Your task to perform on an android device: turn on improve location accuracy Image 0: 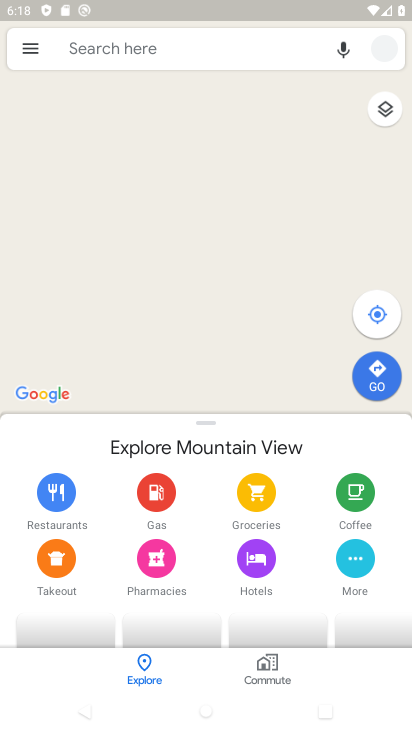
Step 0: click (59, 400)
Your task to perform on an android device: turn on improve location accuracy Image 1: 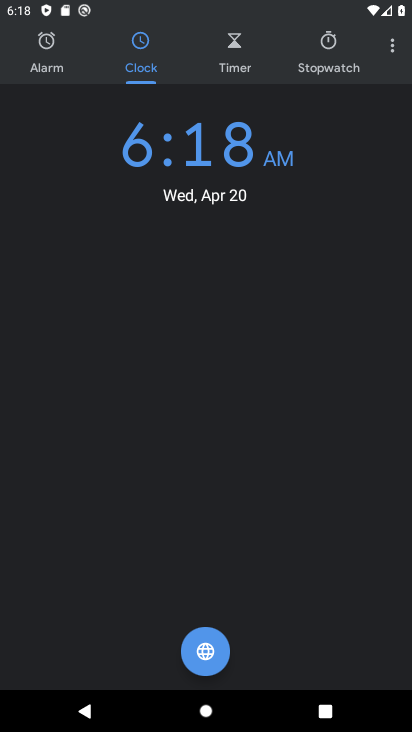
Step 1: press home button
Your task to perform on an android device: turn on improve location accuracy Image 2: 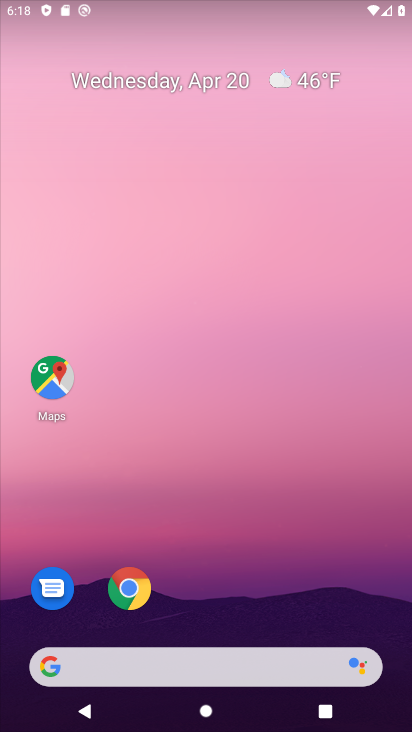
Step 2: drag from (297, 548) to (86, 75)
Your task to perform on an android device: turn on improve location accuracy Image 3: 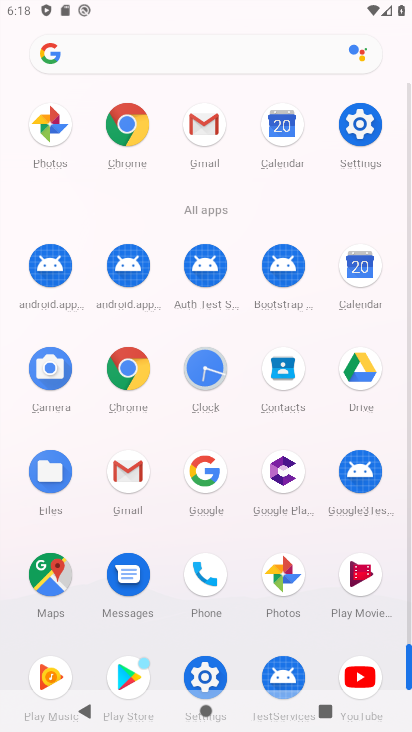
Step 3: click (217, 666)
Your task to perform on an android device: turn on improve location accuracy Image 4: 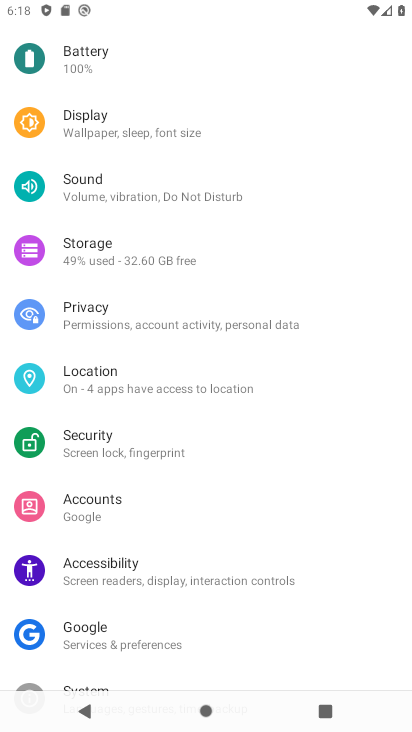
Step 4: drag from (149, 652) to (169, 220)
Your task to perform on an android device: turn on improve location accuracy Image 5: 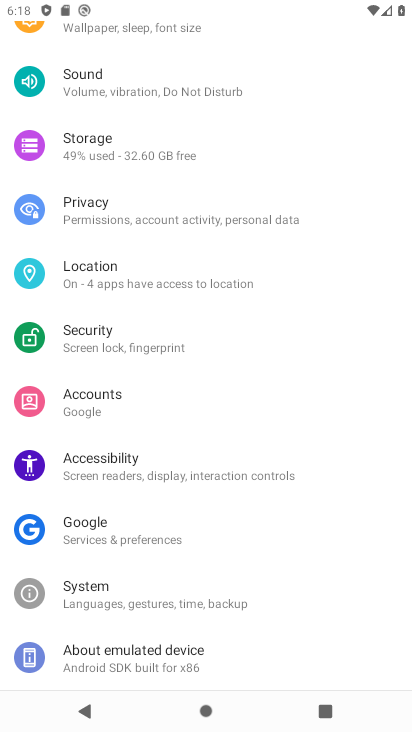
Step 5: click (144, 286)
Your task to perform on an android device: turn on improve location accuracy Image 6: 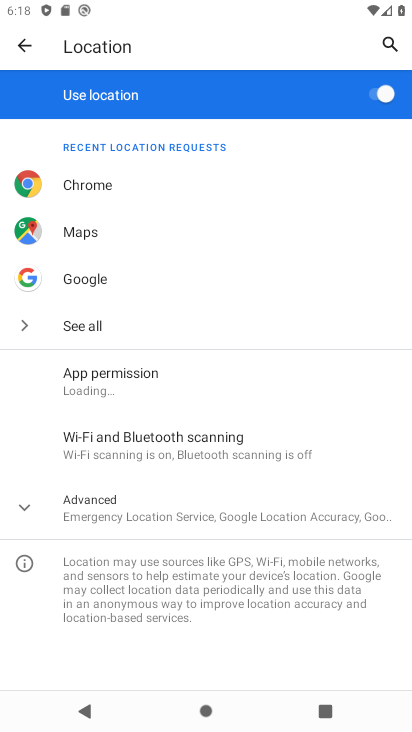
Step 6: click (135, 515)
Your task to perform on an android device: turn on improve location accuracy Image 7: 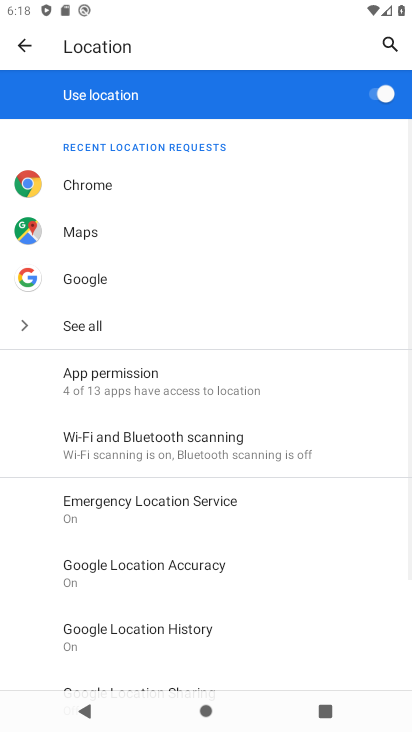
Step 7: click (113, 570)
Your task to perform on an android device: turn on improve location accuracy Image 8: 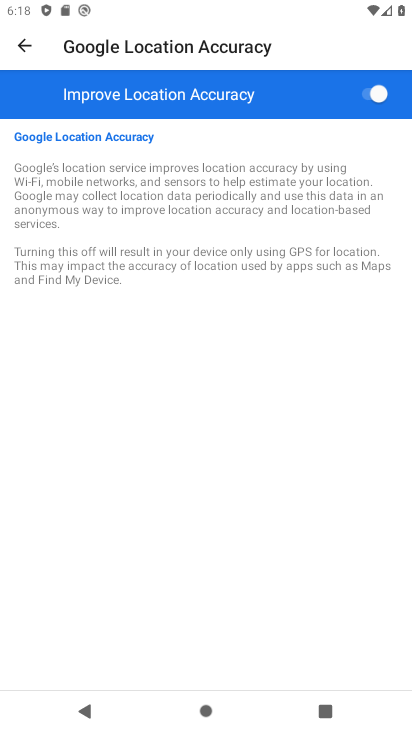
Step 8: task complete